Your task to perform on an android device: turn on sleep mode Image 0: 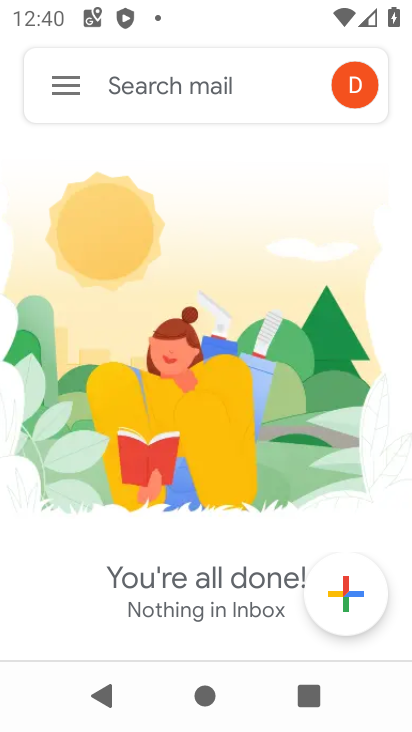
Step 0: press home button
Your task to perform on an android device: turn on sleep mode Image 1: 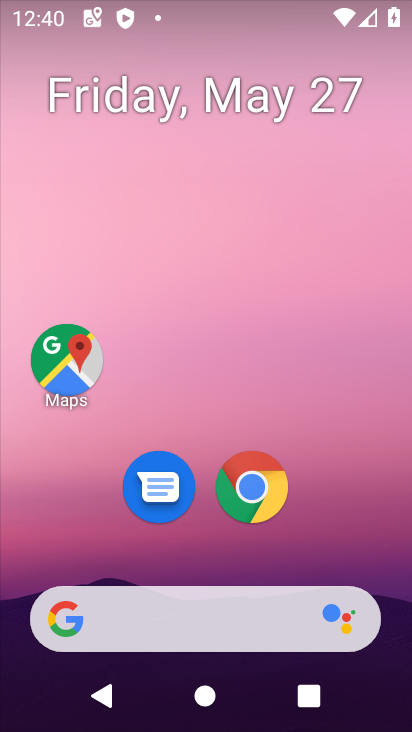
Step 1: drag from (307, 546) to (328, 133)
Your task to perform on an android device: turn on sleep mode Image 2: 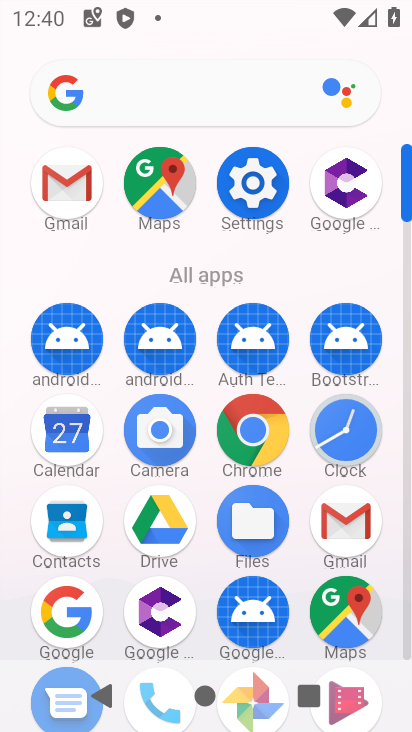
Step 2: click (248, 178)
Your task to perform on an android device: turn on sleep mode Image 3: 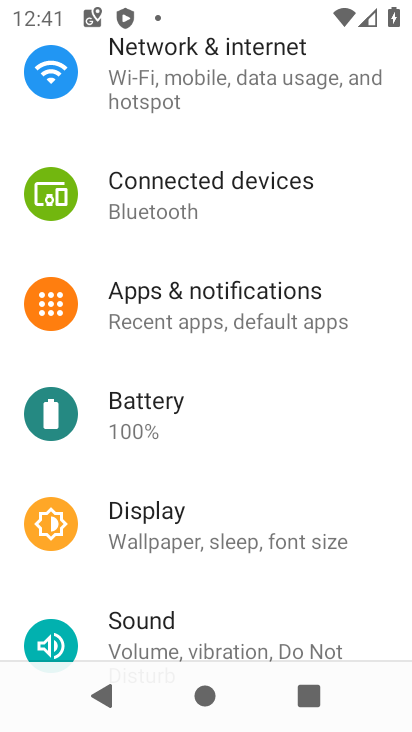
Step 3: click (177, 532)
Your task to perform on an android device: turn on sleep mode Image 4: 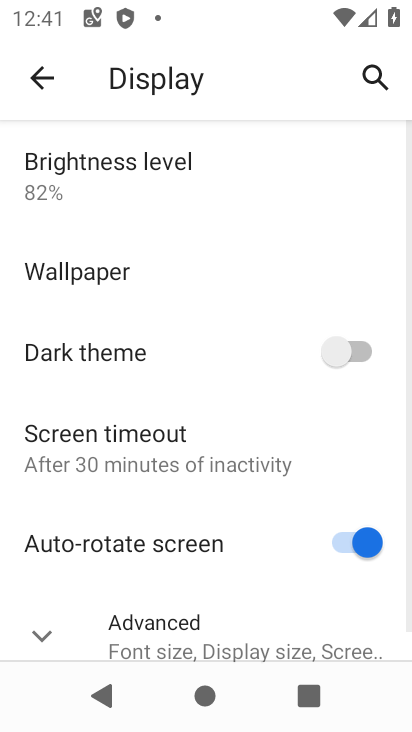
Step 4: click (130, 452)
Your task to perform on an android device: turn on sleep mode Image 5: 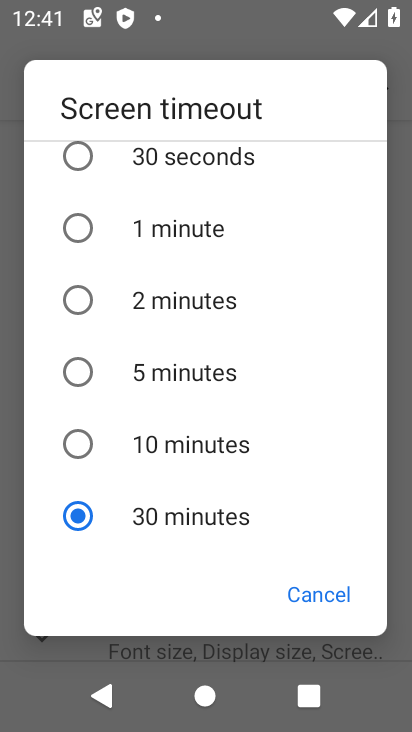
Step 5: task complete